Your task to perform on an android device: Open maps Image 0: 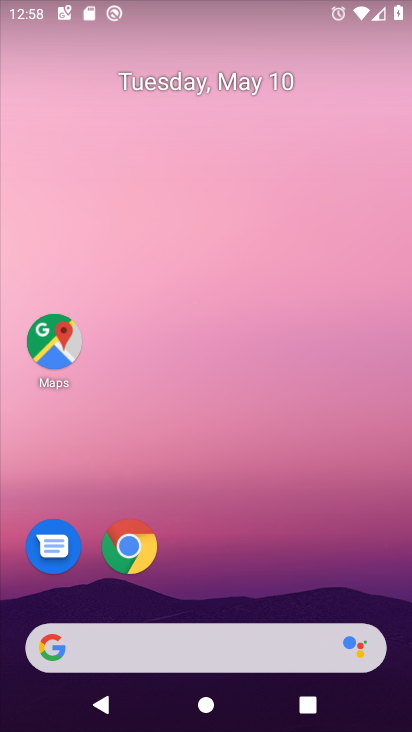
Step 0: click (55, 342)
Your task to perform on an android device: Open maps Image 1: 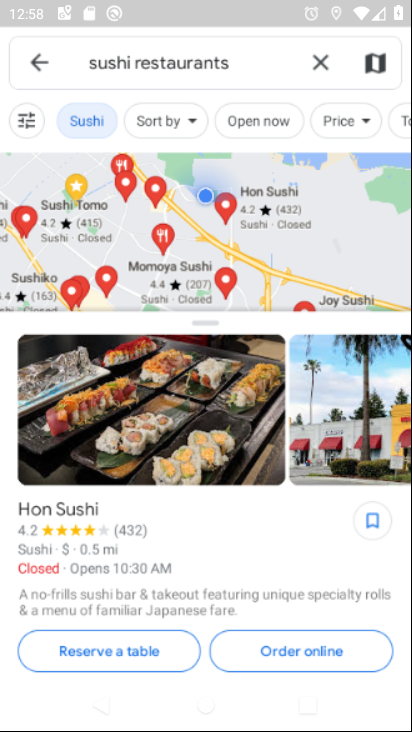
Step 1: task complete